Your task to perform on an android device: turn on priority inbox in the gmail app Image 0: 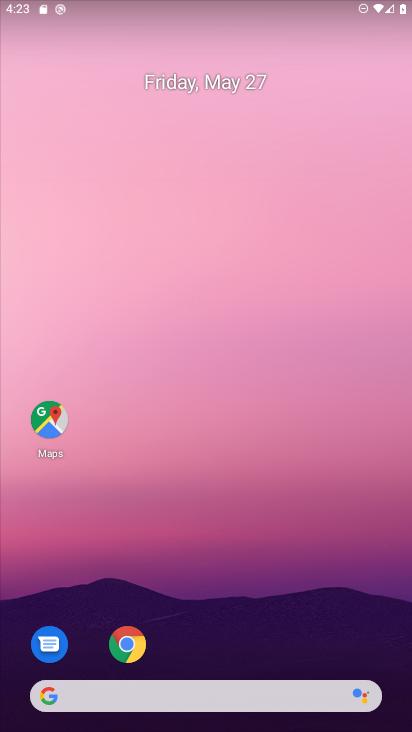
Step 0: drag from (223, 607) to (256, 57)
Your task to perform on an android device: turn on priority inbox in the gmail app Image 1: 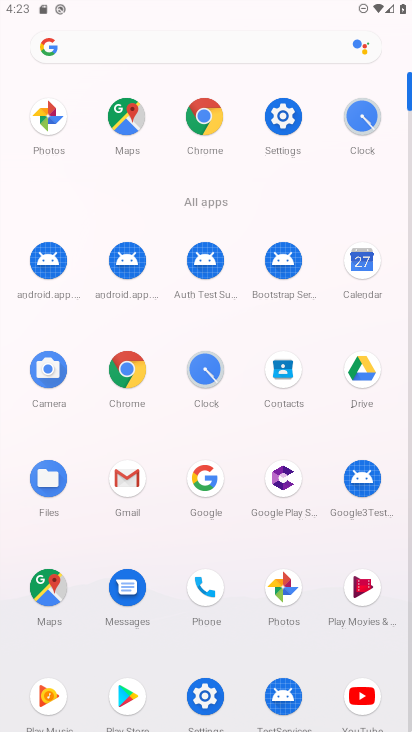
Step 1: click (130, 478)
Your task to perform on an android device: turn on priority inbox in the gmail app Image 2: 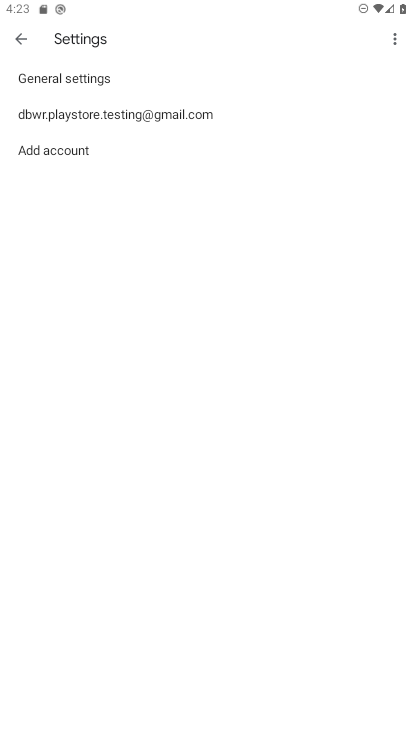
Step 2: click (130, 478)
Your task to perform on an android device: turn on priority inbox in the gmail app Image 3: 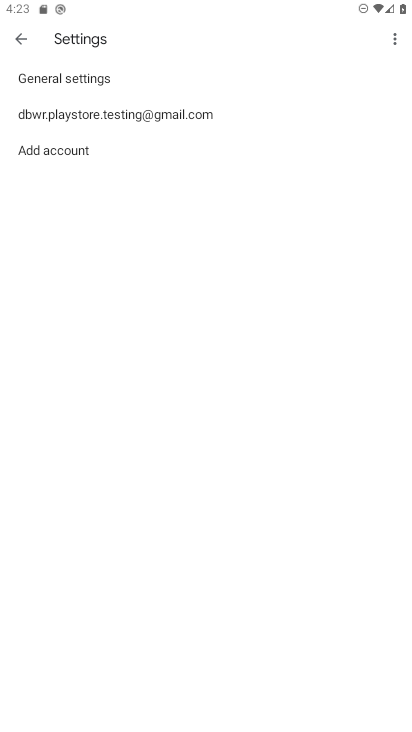
Step 3: click (198, 118)
Your task to perform on an android device: turn on priority inbox in the gmail app Image 4: 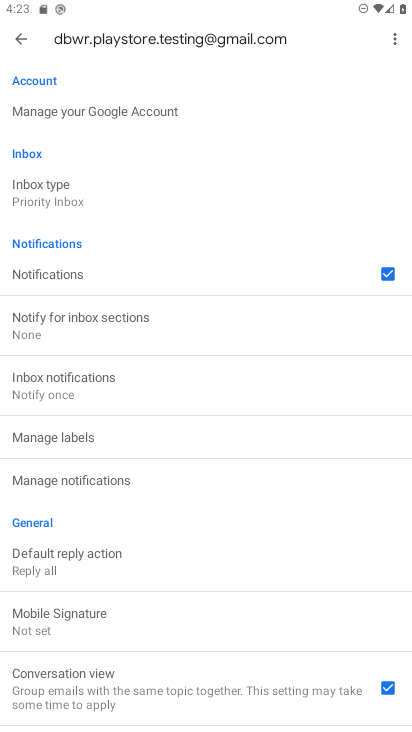
Step 4: click (98, 195)
Your task to perform on an android device: turn on priority inbox in the gmail app Image 5: 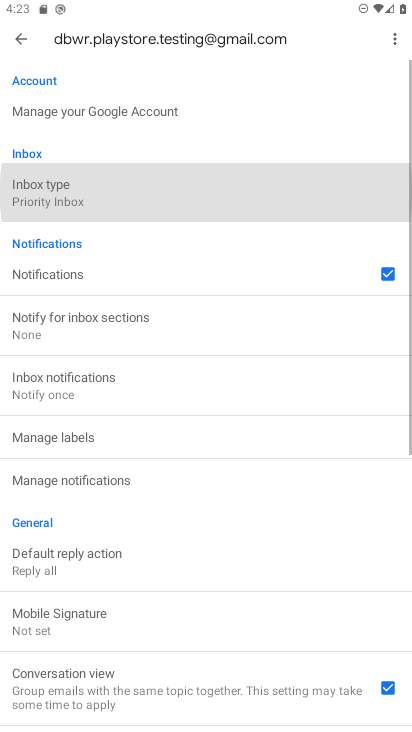
Step 5: click (60, 203)
Your task to perform on an android device: turn on priority inbox in the gmail app Image 6: 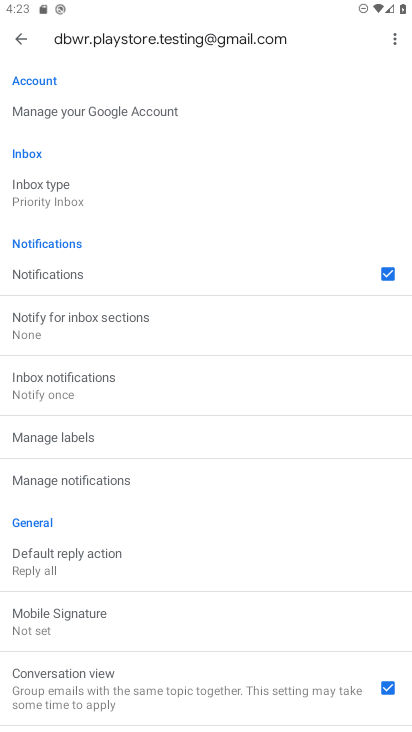
Step 6: click (103, 194)
Your task to perform on an android device: turn on priority inbox in the gmail app Image 7: 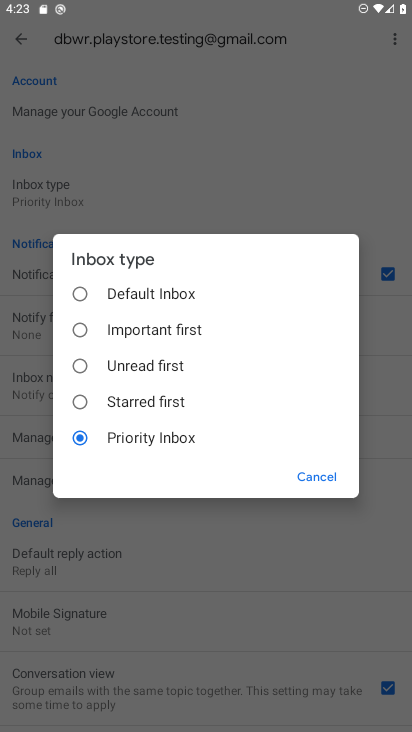
Step 7: task complete